Your task to perform on an android device: Go to sound settings Image 0: 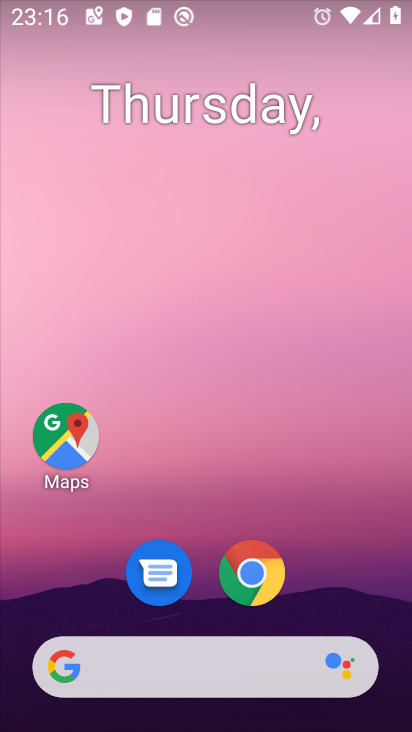
Step 0: drag from (357, 511) to (220, 10)
Your task to perform on an android device: Go to sound settings Image 1: 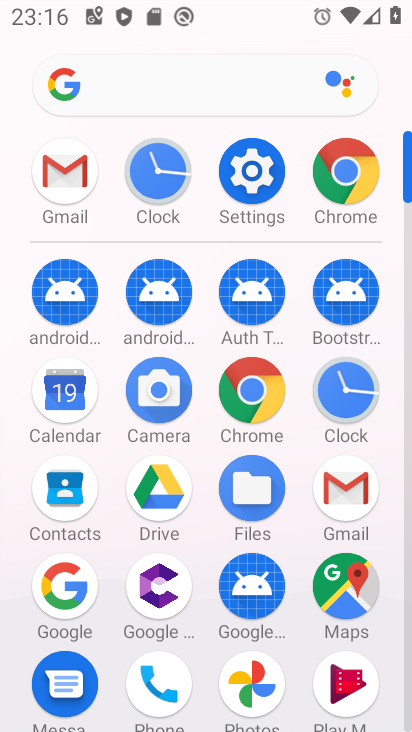
Step 1: click (248, 170)
Your task to perform on an android device: Go to sound settings Image 2: 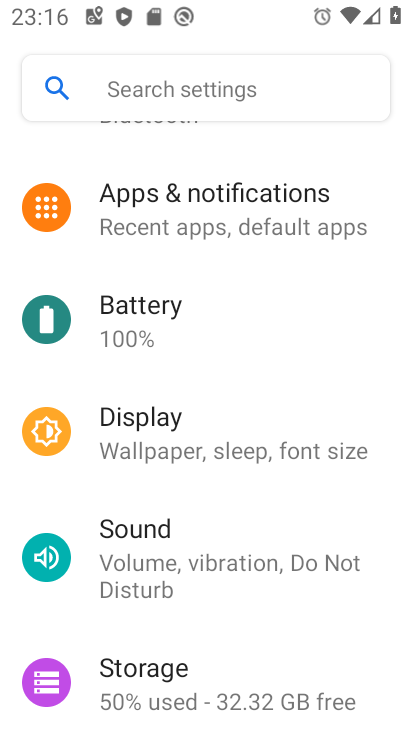
Step 2: click (217, 558)
Your task to perform on an android device: Go to sound settings Image 3: 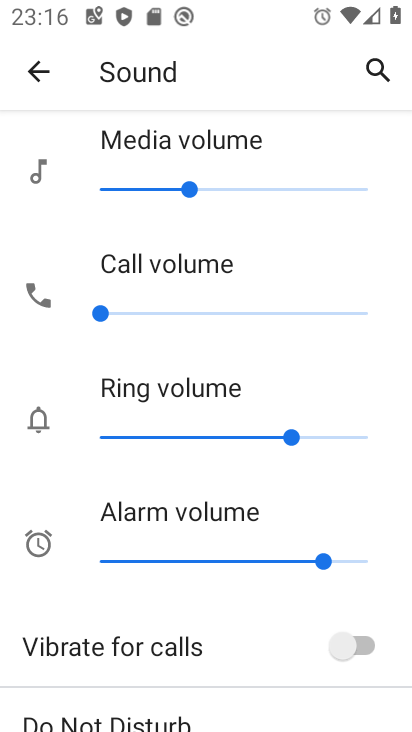
Step 3: task complete